Your task to perform on an android device: turn notification dots on Image 0: 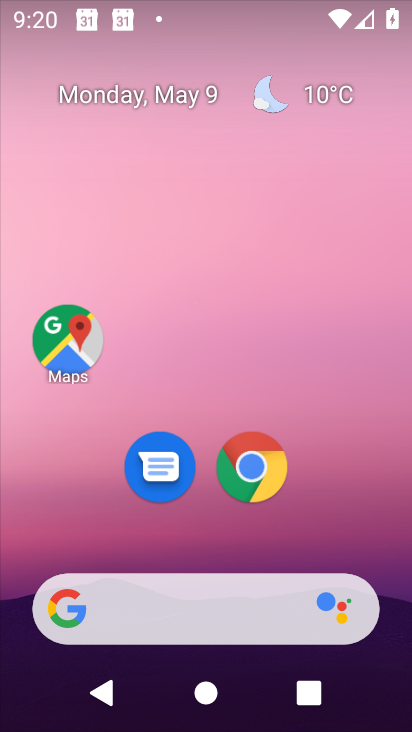
Step 0: drag from (354, 435) to (346, 11)
Your task to perform on an android device: turn notification dots on Image 1: 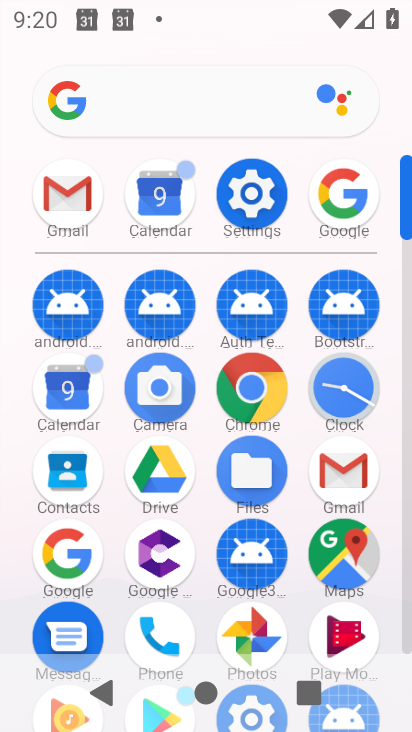
Step 1: click (253, 196)
Your task to perform on an android device: turn notification dots on Image 2: 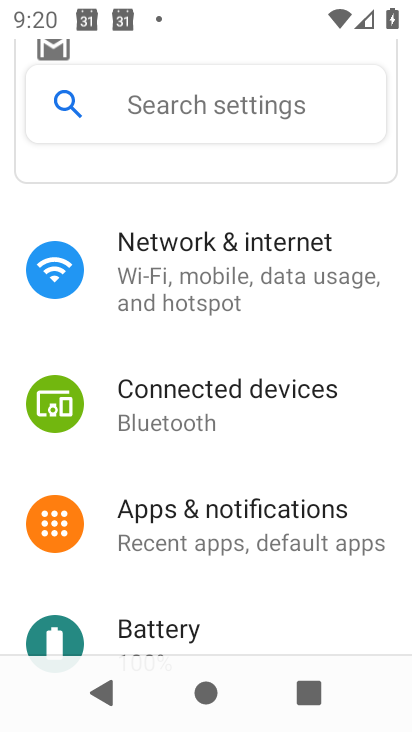
Step 2: click (220, 514)
Your task to perform on an android device: turn notification dots on Image 3: 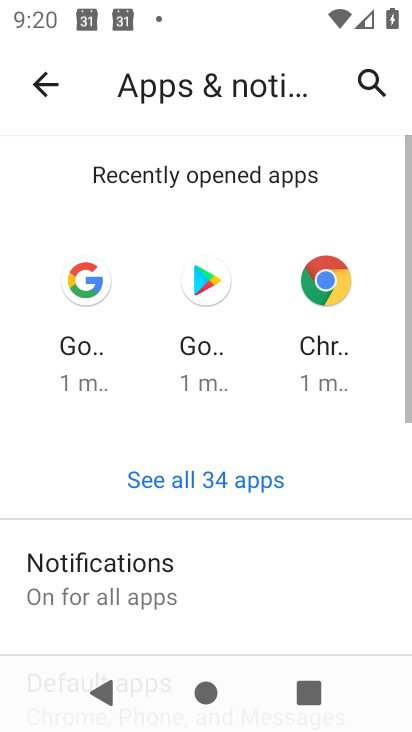
Step 3: drag from (220, 514) to (239, 130)
Your task to perform on an android device: turn notification dots on Image 4: 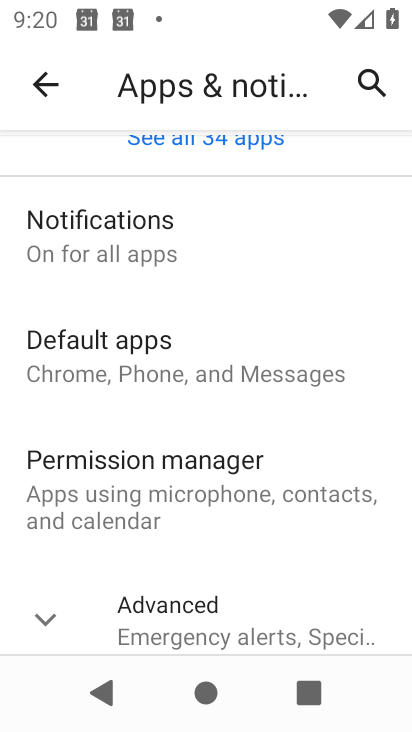
Step 4: click (81, 245)
Your task to perform on an android device: turn notification dots on Image 5: 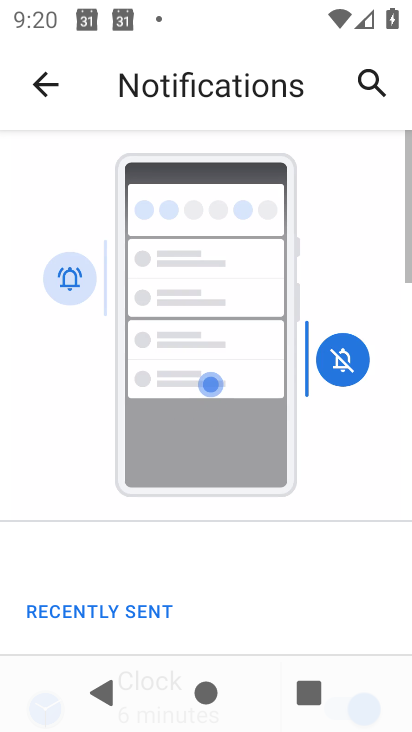
Step 5: drag from (202, 571) to (191, 72)
Your task to perform on an android device: turn notification dots on Image 6: 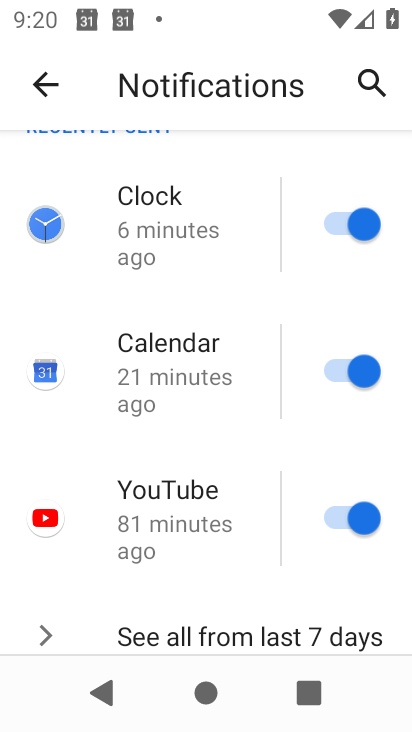
Step 6: drag from (190, 474) to (203, 110)
Your task to perform on an android device: turn notification dots on Image 7: 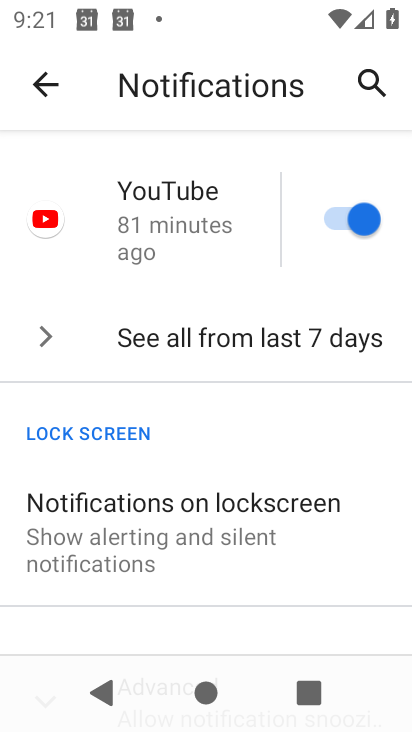
Step 7: drag from (189, 544) to (173, 162)
Your task to perform on an android device: turn notification dots on Image 8: 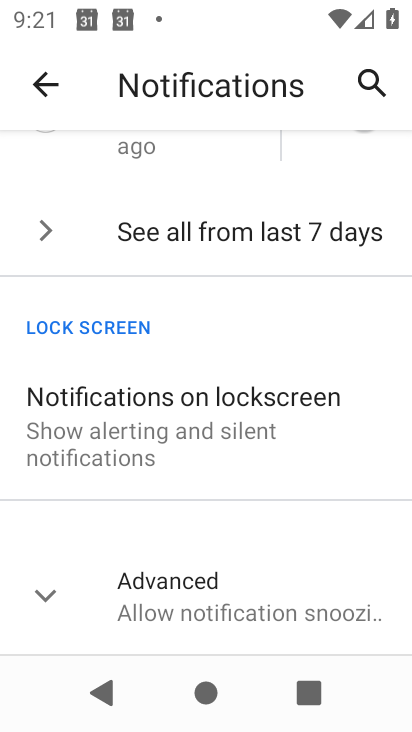
Step 8: click (38, 602)
Your task to perform on an android device: turn notification dots on Image 9: 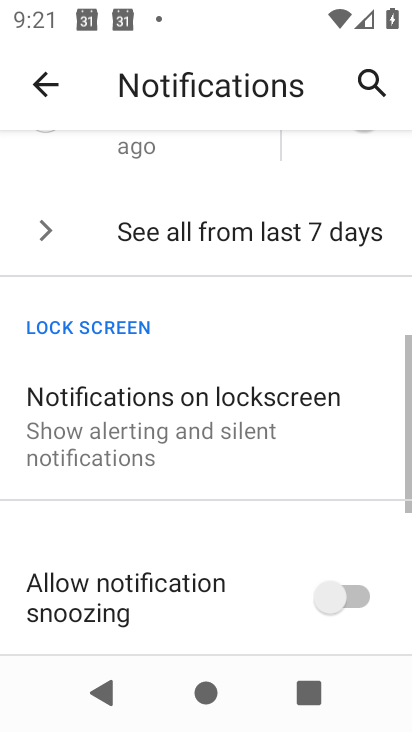
Step 9: task complete